Your task to perform on an android device: Go to sound settings Image 0: 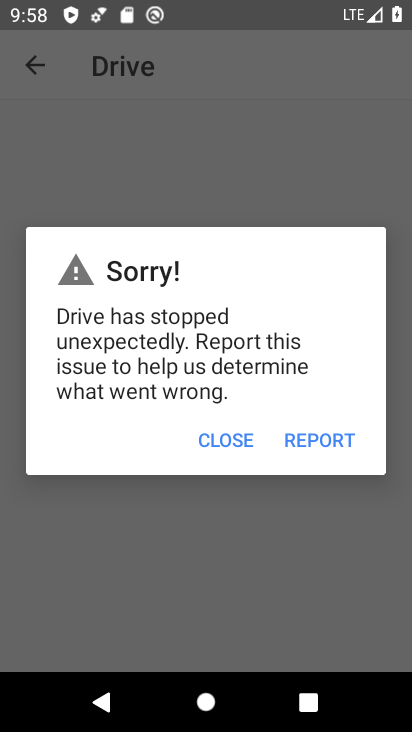
Step 0: press home button
Your task to perform on an android device: Go to sound settings Image 1: 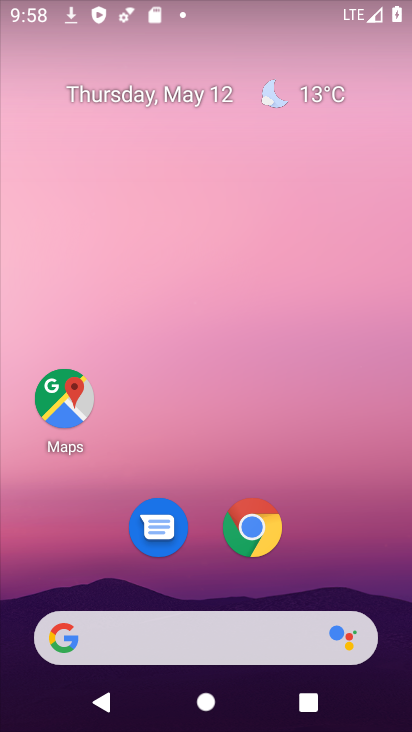
Step 1: drag from (335, 551) to (216, 213)
Your task to perform on an android device: Go to sound settings Image 2: 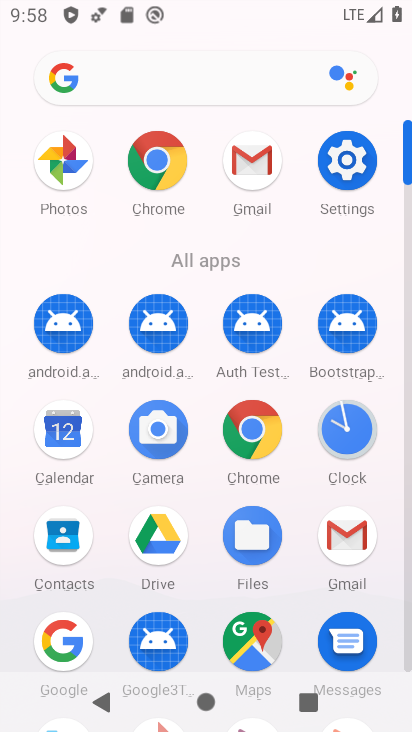
Step 2: click (346, 162)
Your task to perform on an android device: Go to sound settings Image 3: 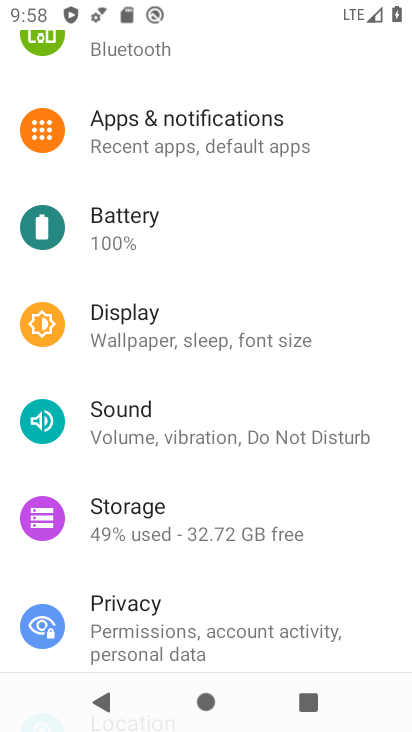
Step 3: click (192, 436)
Your task to perform on an android device: Go to sound settings Image 4: 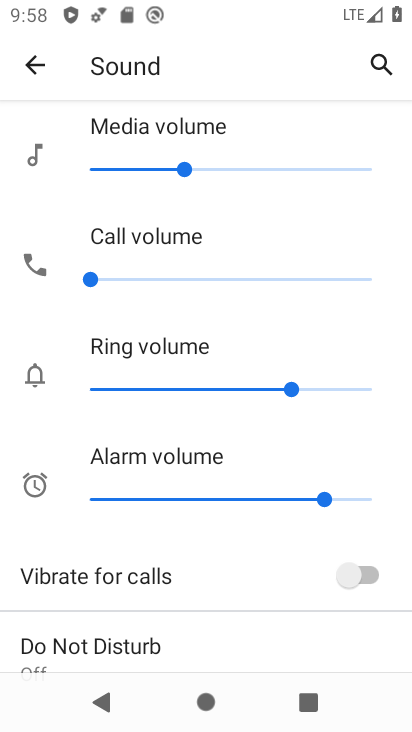
Step 4: task complete